Your task to perform on an android device: change keyboard looks Image 0: 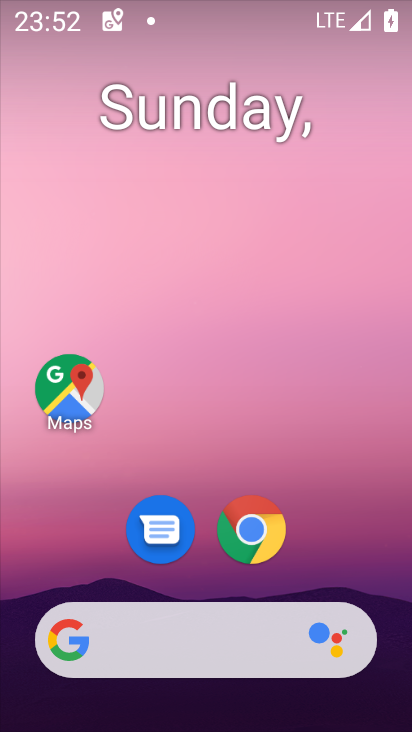
Step 0: drag from (336, 563) to (283, 88)
Your task to perform on an android device: change keyboard looks Image 1: 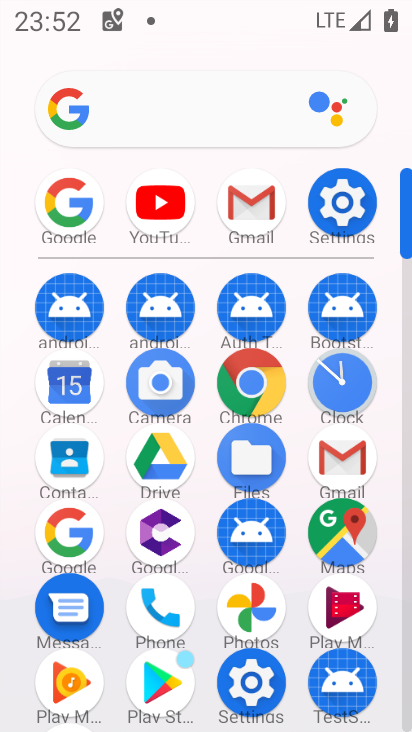
Step 1: click (344, 201)
Your task to perform on an android device: change keyboard looks Image 2: 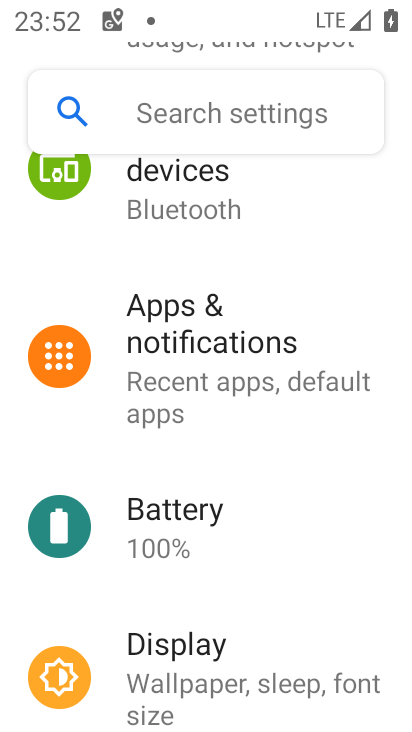
Step 2: drag from (262, 598) to (286, 395)
Your task to perform on an android device: change keyboard looks Image 3: 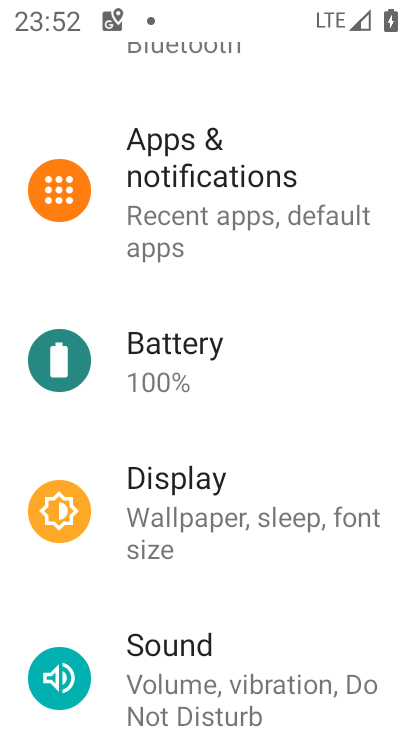
Step 3: drag from (261, 627) to (314, 421)
Your task to perform on an android device: change keyboard looks Image 4: 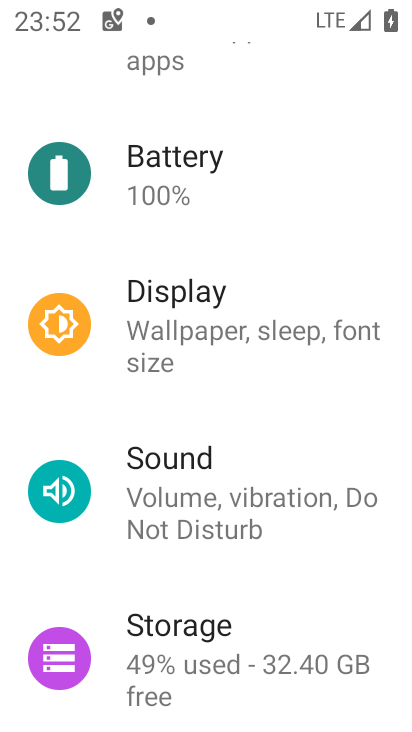
Step 4: drag from (261, 535) to (317, 333)
Your task to perform on an android device: change keyboard looks Image 5: 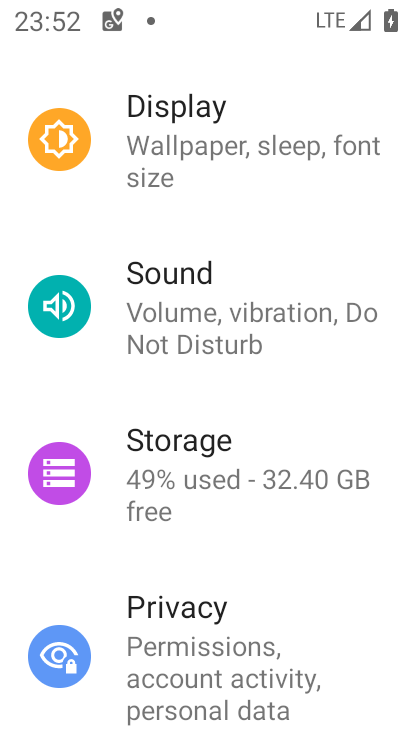
Step 5: drag from (244, 543) to (333, 336)
Your task to perform on an android device: change keyboard looks Image 6: 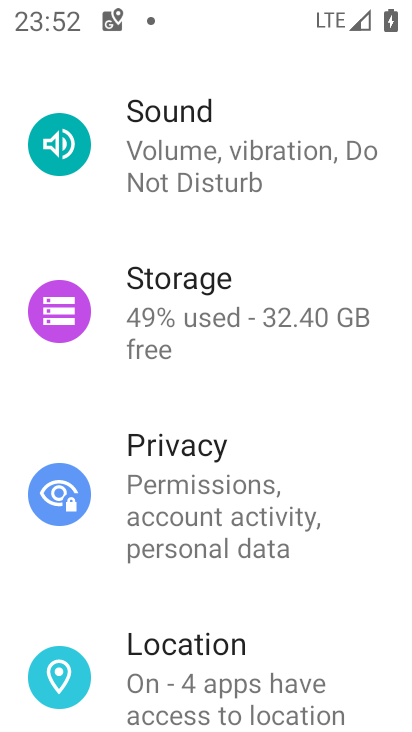
Step 6: drag from (237, 607) to (333, 412)
Your task to perform on an android device: change keyboard looks Image 7: 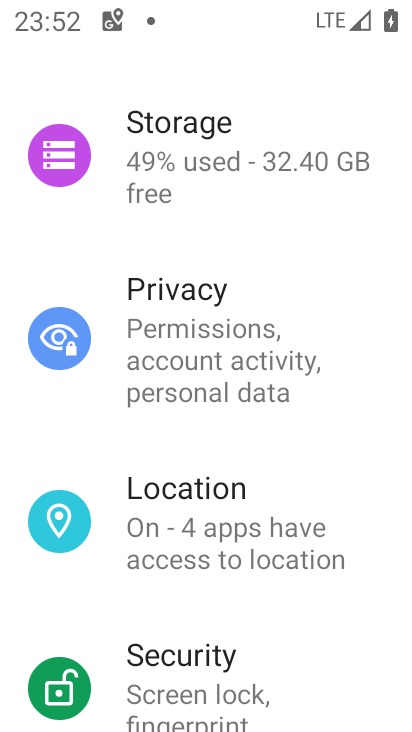
Step 7: drag from (153, 612) to (248, 376)
Your task to perform on an android device: change keyboard looks Image 8: 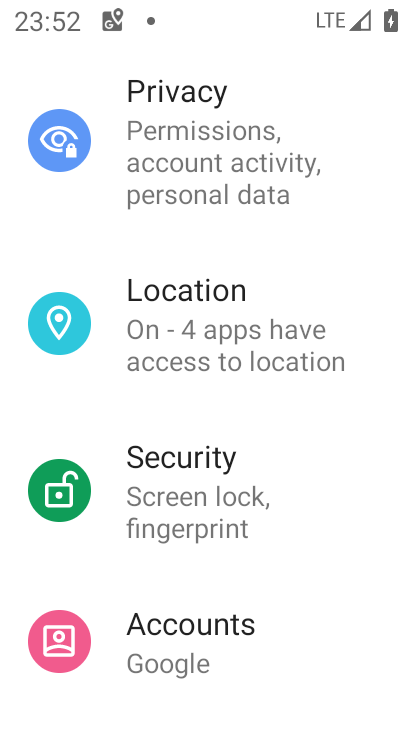
Step 8: drag from (215, 569) to (280, 411)
Your task to perform on an android device: change keyboard looks Image 9: 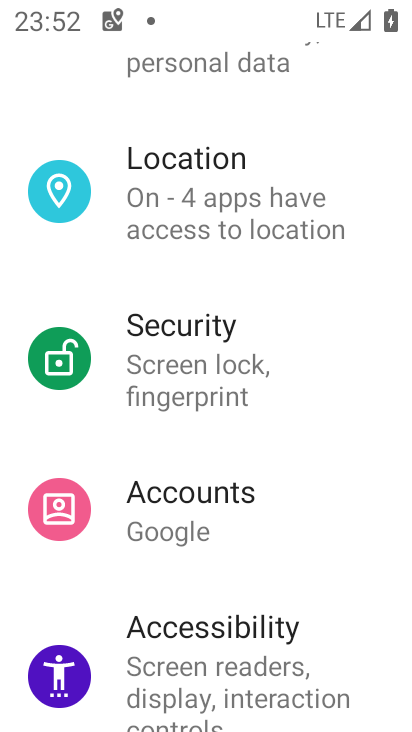
Step 9: drag from (208, 521) to (234, 362)
Your task to perform on an android device: change keyboard looks Image 10: 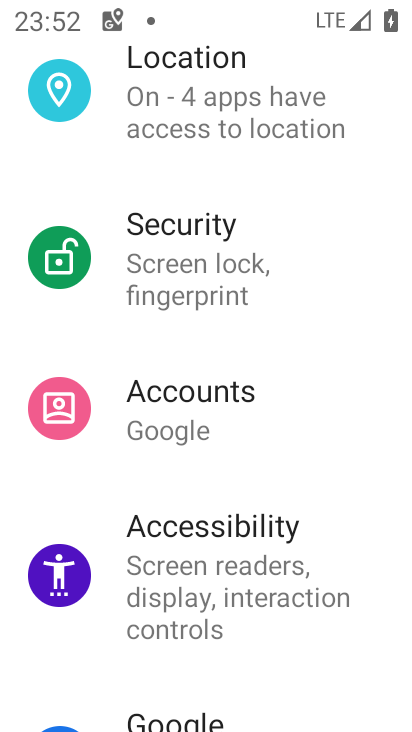
Step 10: drag from (187, 650) to (259, 474)
Your task to perform on an android device: change keyboard looks Image 11: 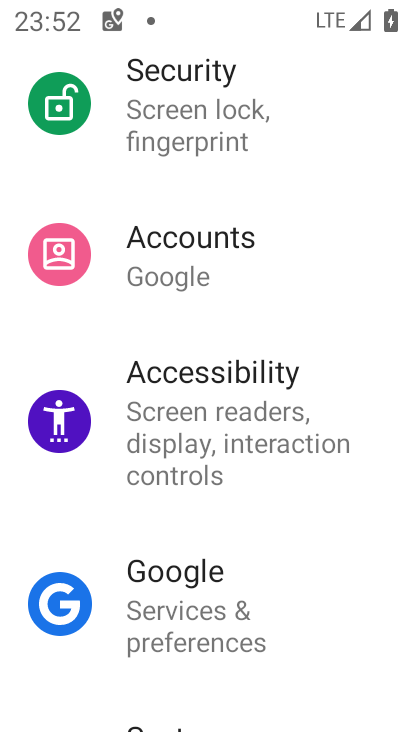
Step 11: drag from (193, 522) to (301, 341)
Your task to perform on an android device: change keyboard looks Image 12: 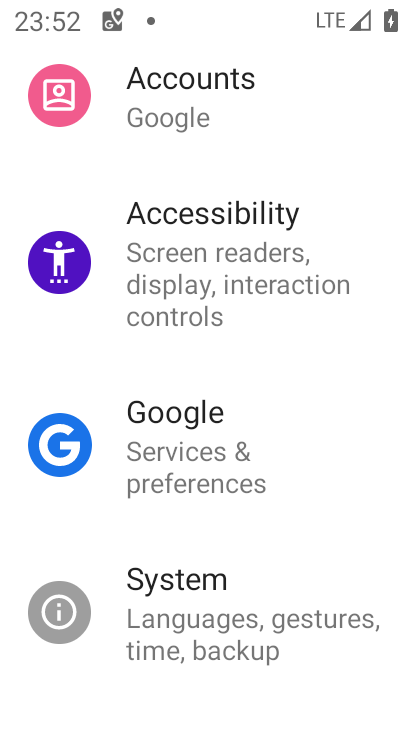
Step 12: click (164, 576)
Your task to perform on an android device: change keyboard looks Image 13: 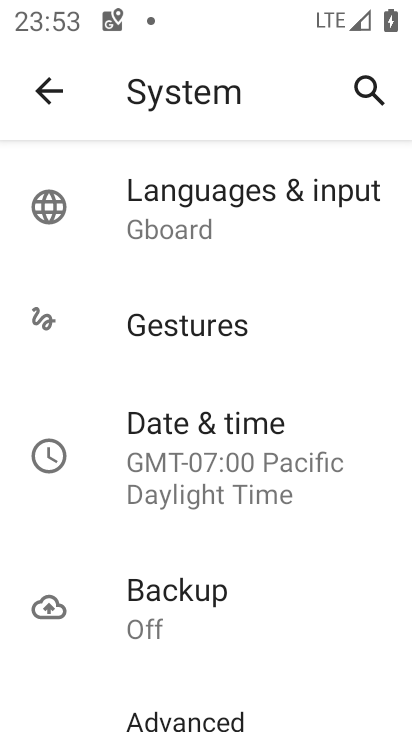
Step 13: click (212, 215)
Your task to perform on an android device: change keyboard looks Image 14: 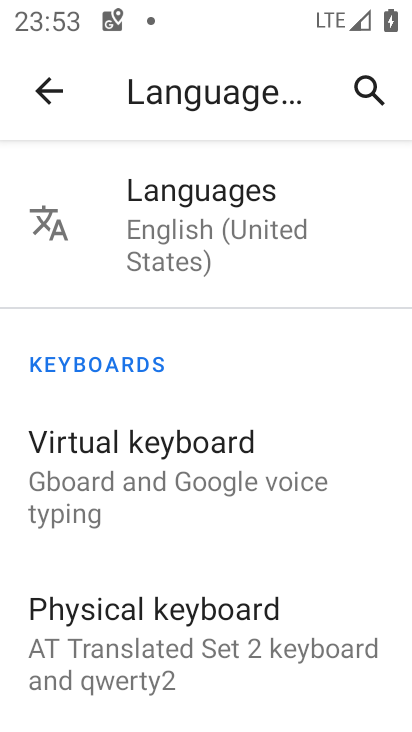
Step 14: click (195, 485)
Your task to perform on an android device: change keyboard looks Image 15: 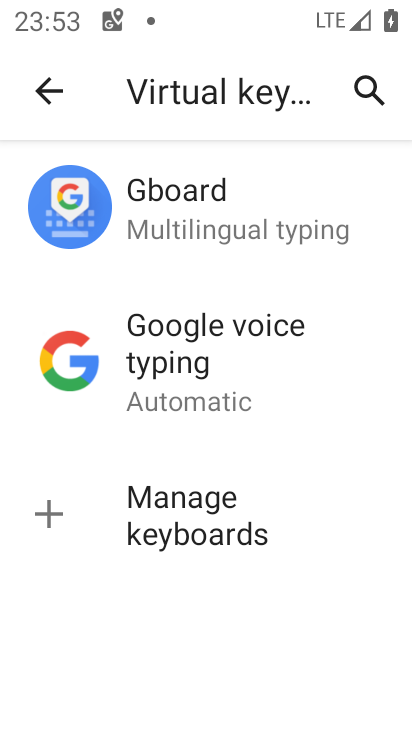
Step 15: click (225, 225)
Your task to perform on an android device: change keyboard looks Image 16: 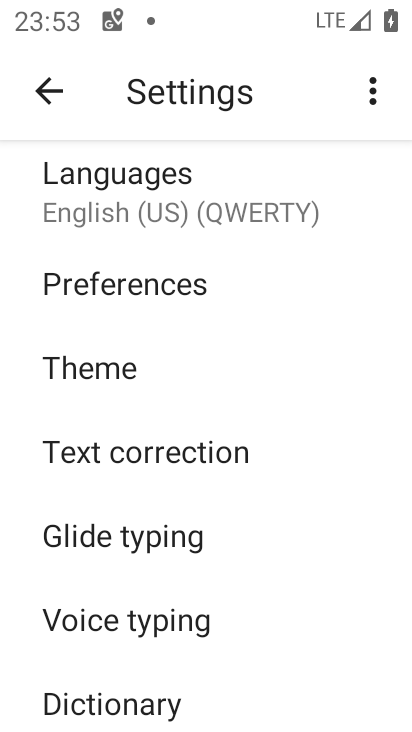
Step 16: click (123, 368)
Your task to perform on an android device: change keyboard looks Image 17: 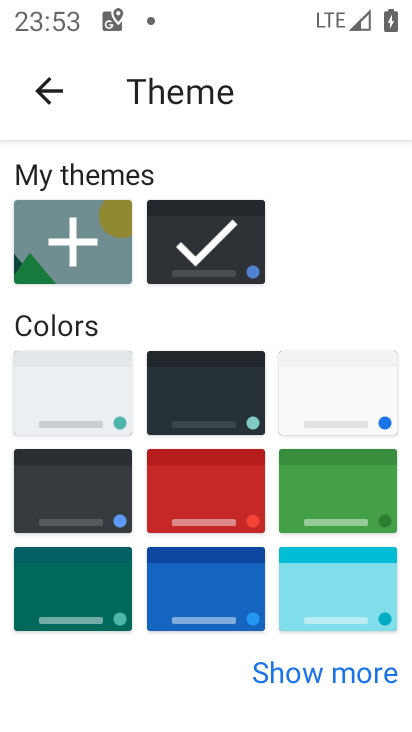
Step 17: click (219, 512)
Your task to perform on an android device: change keyboard looks Image 18: 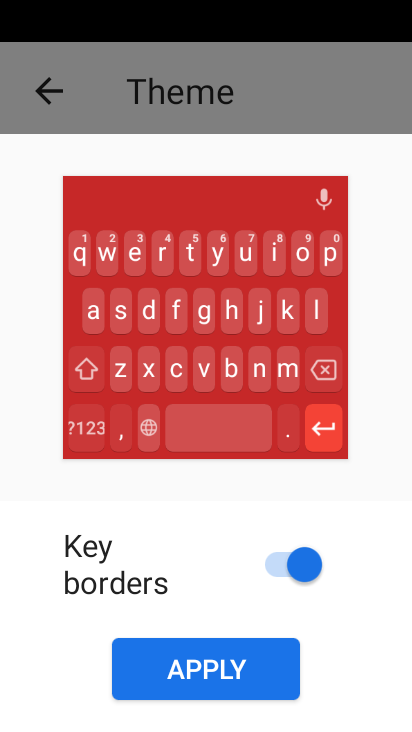
Step 18: click (212, 664)
Your task to perform on an android device: change keyboard looks Image 19: 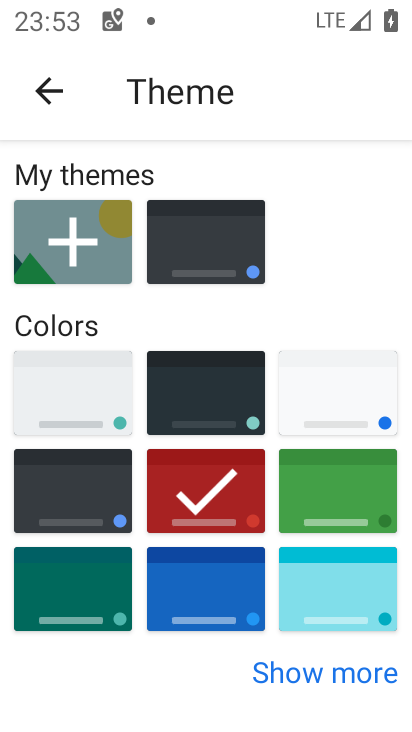
Step 19: task complete